Your task to perform on an android device: empty trash in the gmail app Image 0: 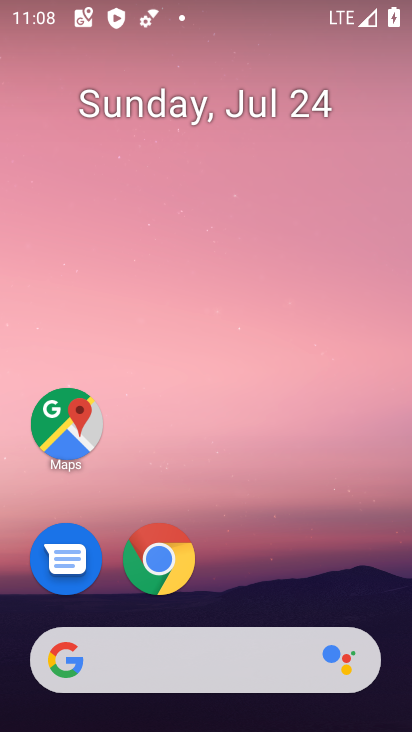
Step 0: drag from (242, 592) to (316, 6)
Your task to perform on an android device: empty trash in the gmail app Image 1: 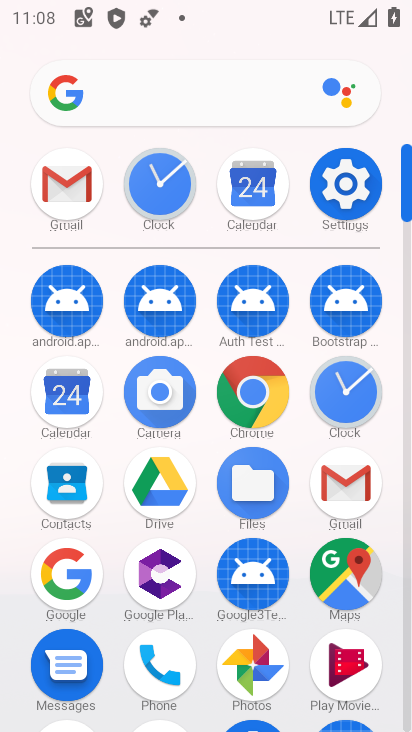
Step 1: click (60, 189)
Your task to perform on an android device: empty trash in the gmail app Image 2: 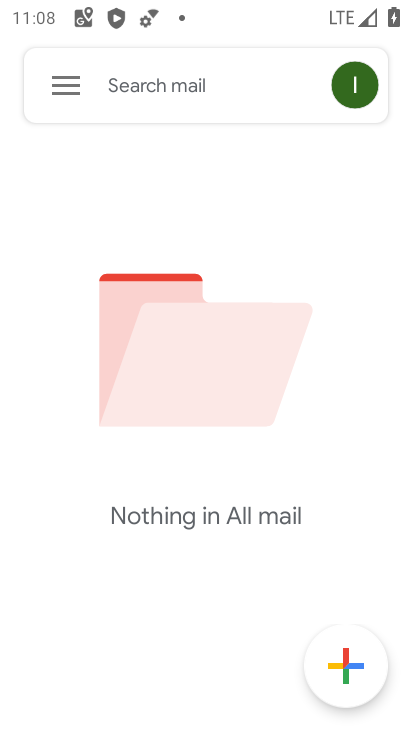
Step 2: click (52, 73)
Your task to perform on an android device: empty trash in the gmail app Image 3: 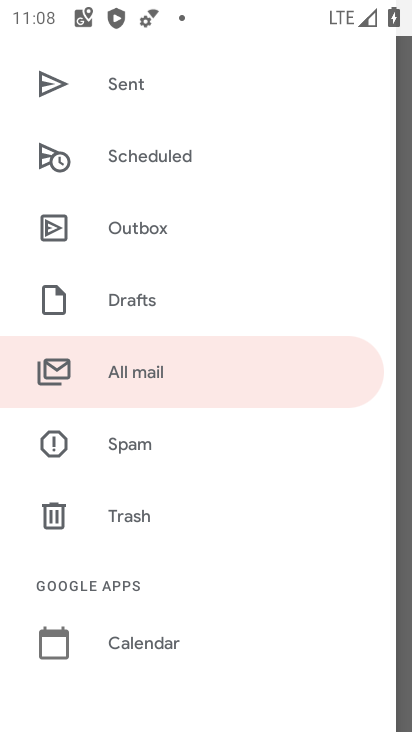
Step 3: click (138, 510)
Your task to perform on an android device: empty trash in the gmail app Image 4: 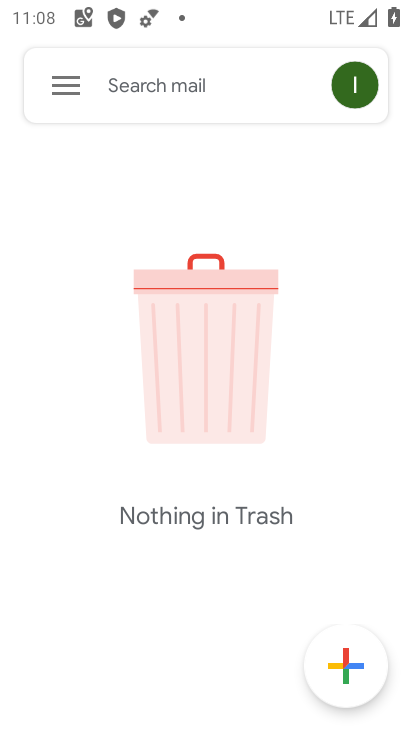
Step 4: task complete